Your task to perform on an android device: delete the emails in spam in the gmail app Image 0: 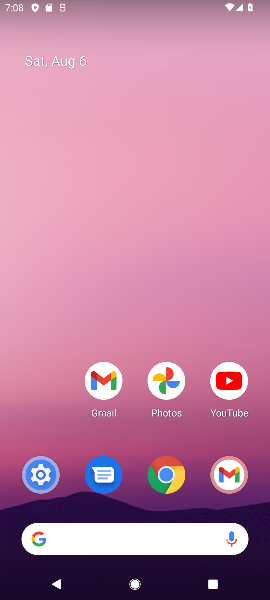
Step 0: click (103, 390)
Your task to perform on an android device: delete the emails in spam in the gmail app Image 1: 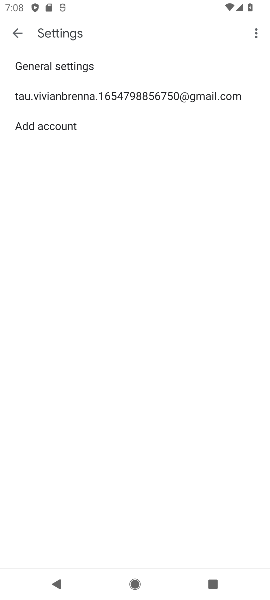
Step 1: click (20, 29)
Your task to perform on an android device: delete the emails in spam in the gmail app Image 2: 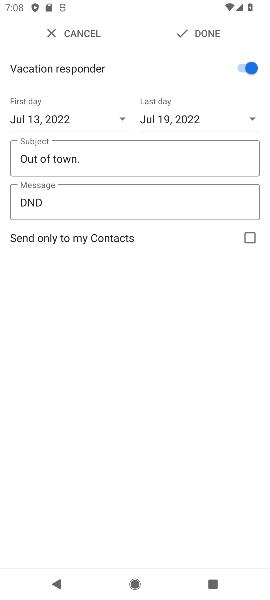
Step 2: click (83, 35)
Your task to perform on an android device: delete the emails in spam in the gmail app Image 3: 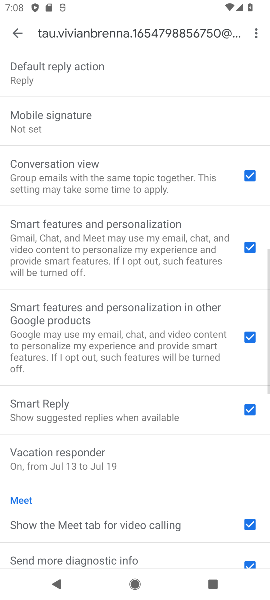
Step 3: click (20, 30)
Your task to perform on an android device: delete the emails in spam in the gmail app Image 4: 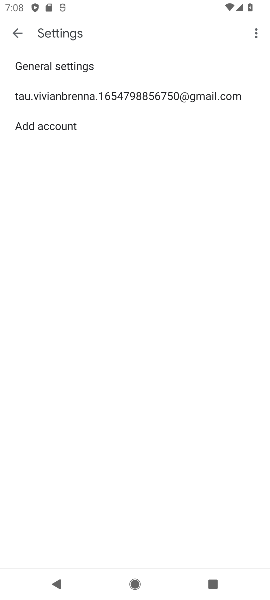
Step 4: click (20, 30)
Your task to perform on an android device: delete the emails in spam in the gmail app Image 5: 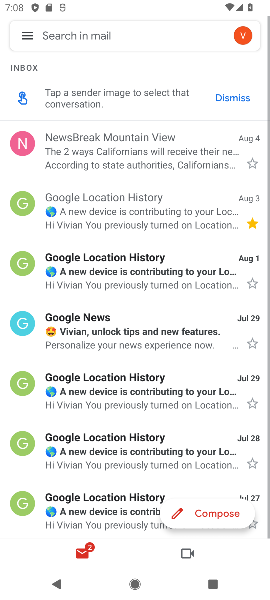
Step 5: click (20, 30)
Your task to perform on an android device: delete the emails in spam in the gmail app Image 6: 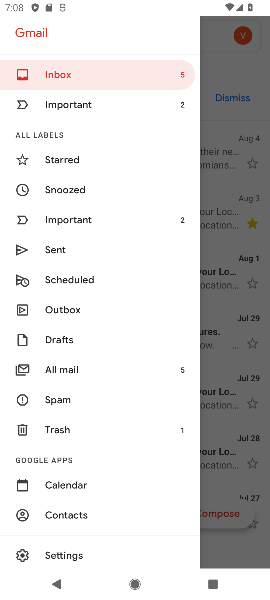
Step 6: click (81, 403)
Your task to perform on an android device: delete the emails in spam in the gmail app Image 7: 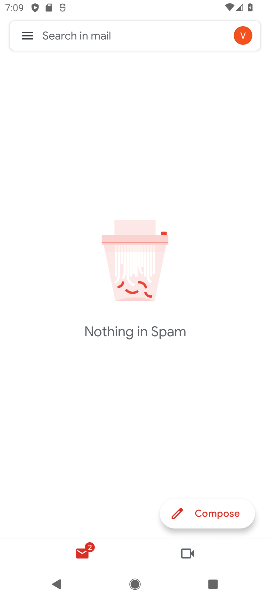
Step 7: task complete